Your task to perform on an android device: Open the phone app and click the voicemail tab. Image 0: 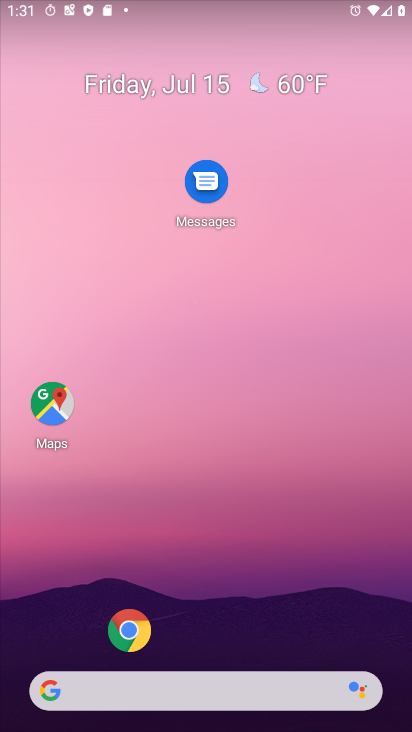
Step 0: click (176, 216)
Your task to perform on an android device: Open the phone app and click the voicemail tab. Image 1: 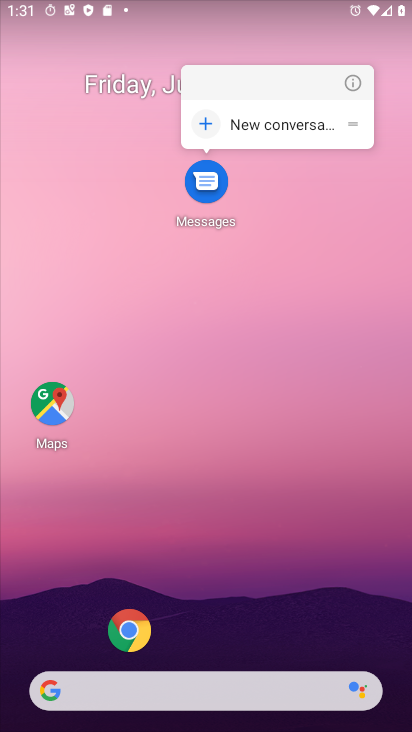
Step 1: drag from (46, 631) to (380, 34)
Your task to perform on an android device: Open the phone app and click the voicemail tab. Image 2: 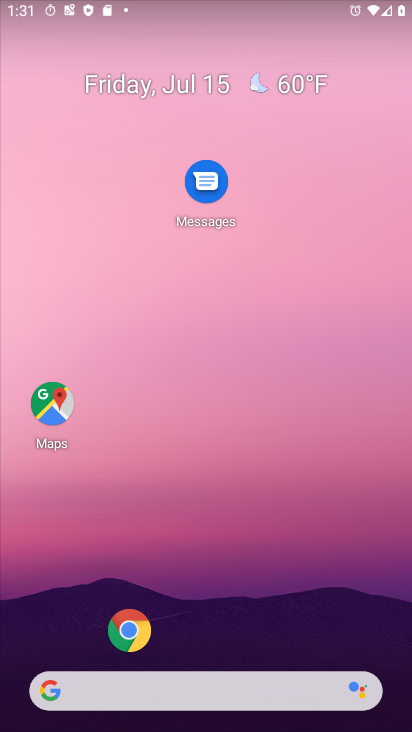
Step 2: drag from (42, 630) to (235, 41)
Your task to perform on an android device: Open the phone app and click the voicemail tab. Image 3: 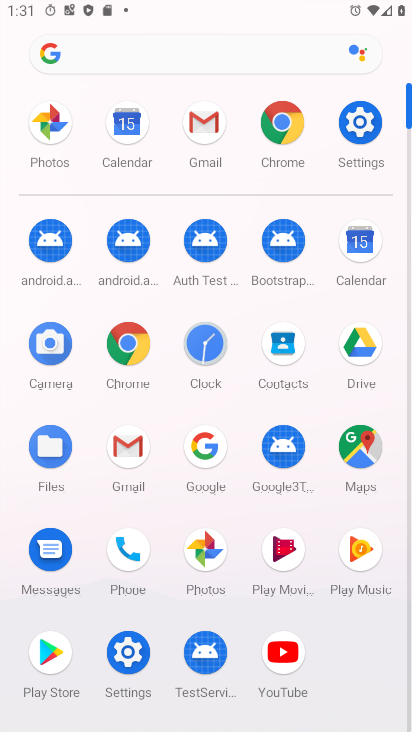
Step 3: click (149, 545)
Your task to perform on an android device: Open the phone app and click the voicemail tab. Image 4: 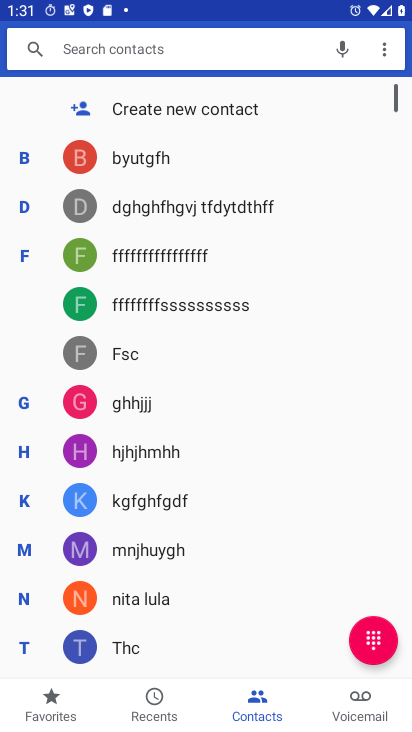
Step 4: click (380, 699)
Your task to perform on an android device: Open the phone app and click the voicemail tab. Image 5: 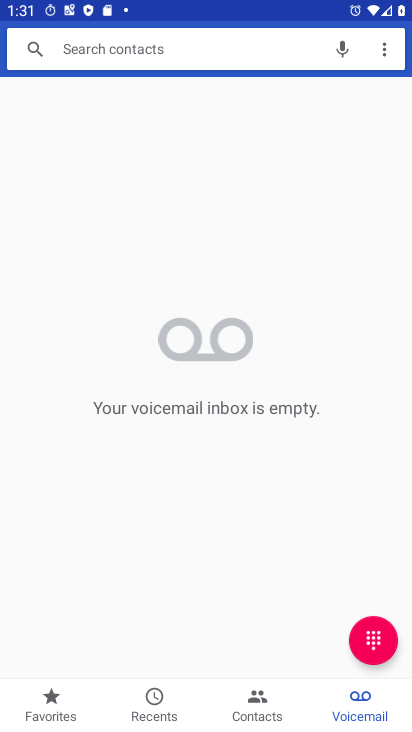
Step 5: task complete